Your task to perform on an android device: add a contact in the contacts app Image 0: 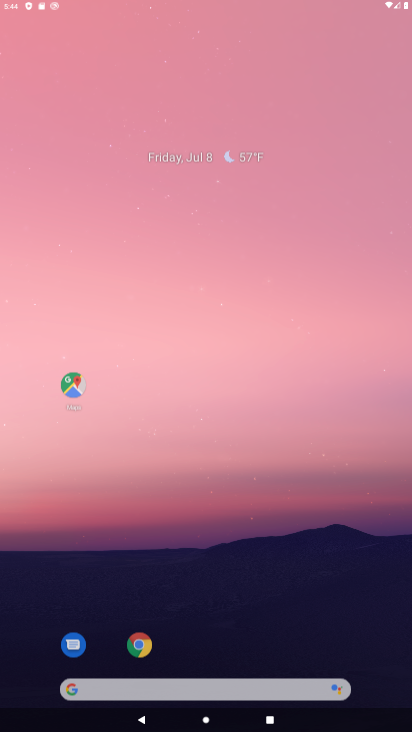
Step 0: press home button
Your task to perform on an android device: add a contact in the contacts app Image 1: 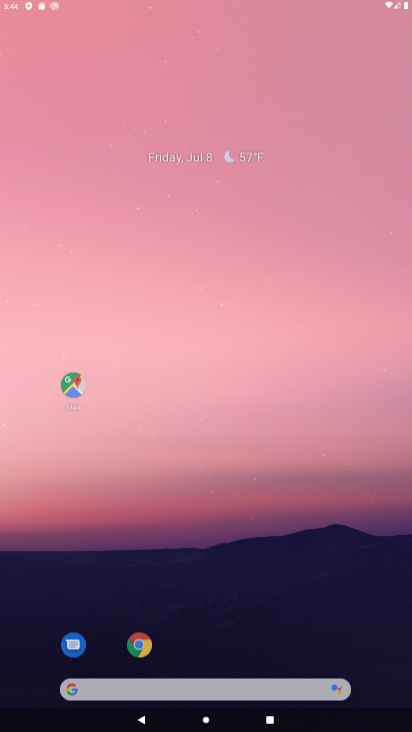
Step 1: click (169, 39)
Your task to perform on an android device: add a contact in the contacts app Image 2: 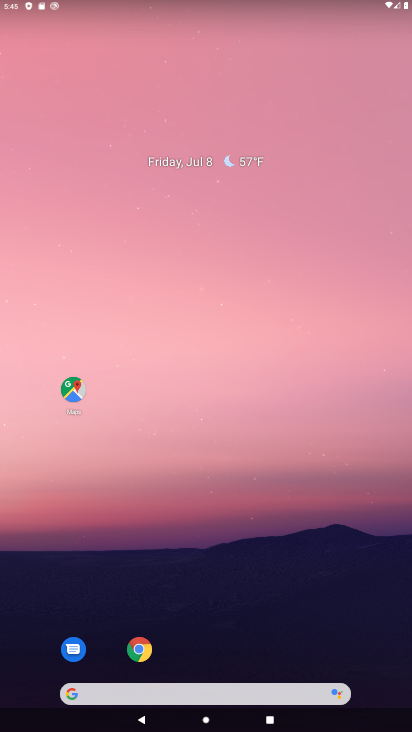
Step 2: drag from (285, 518) to (324, 34)
Your task to perform on an android device: add a contact in the contacts app Image 3: 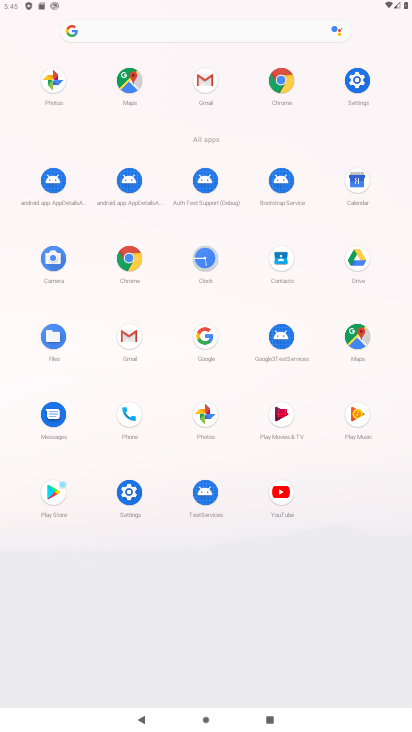
Step 3: click (280, 260)
Your task to perform on an android device: add a contact in the contacts app Image 4: 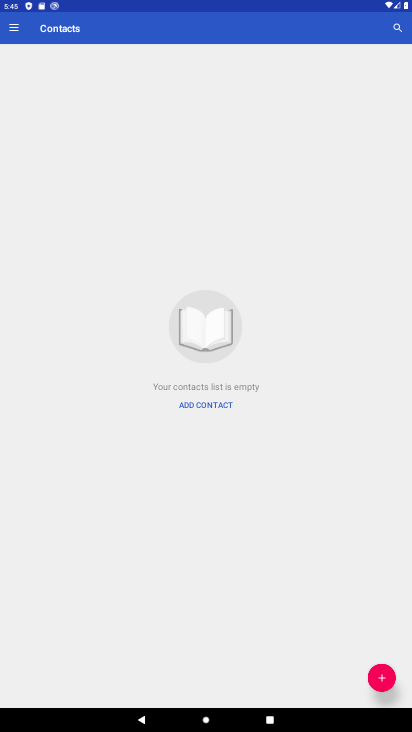
Step 4: click (382, 673)
Your task to perform on an android device: add a contact in the contacts app Image 5: 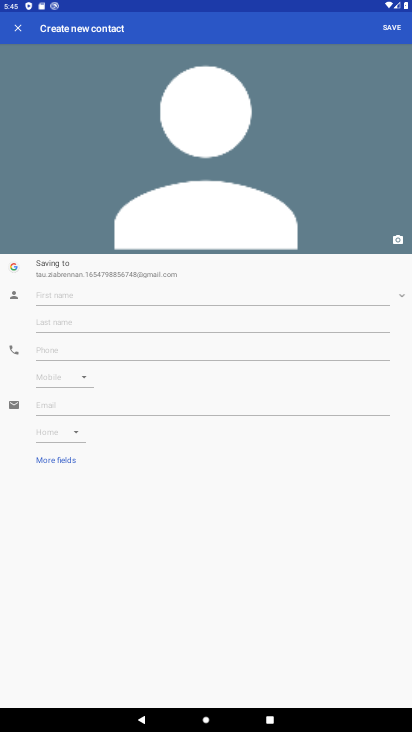
Step 5: click (148, 294)
Your task to perform on an android device: add a contact in the contacts app Image 6: 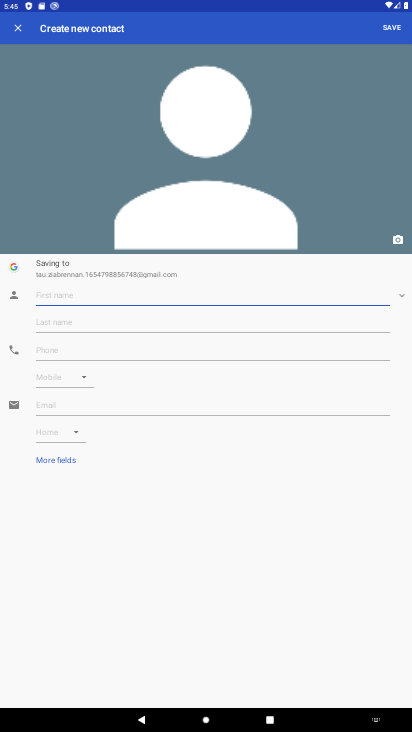
Step 6: type "swati"
Your task to perform on an android device: add a contact in the contacts app Image 7: 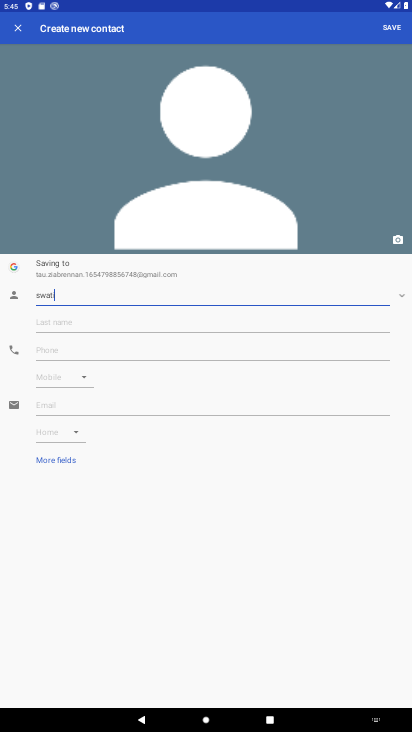
Step 7: click (91, 342)
Your task to perform on an android device: add a contact in the contacts app Image 8: 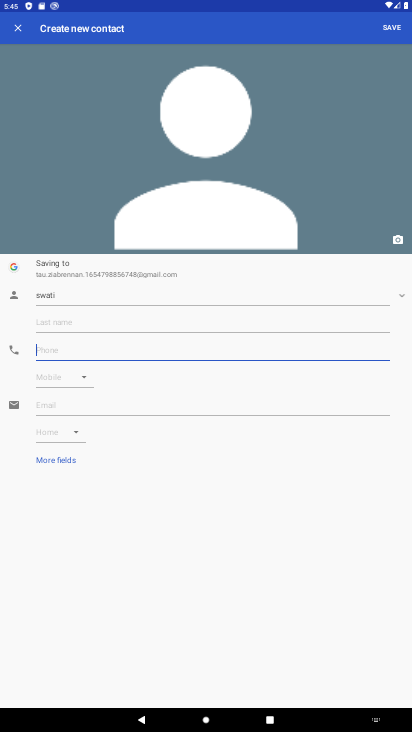
Step 8: type "9876543235"
Your task to perform on an android device: add a contact in the contacts app Image 9: 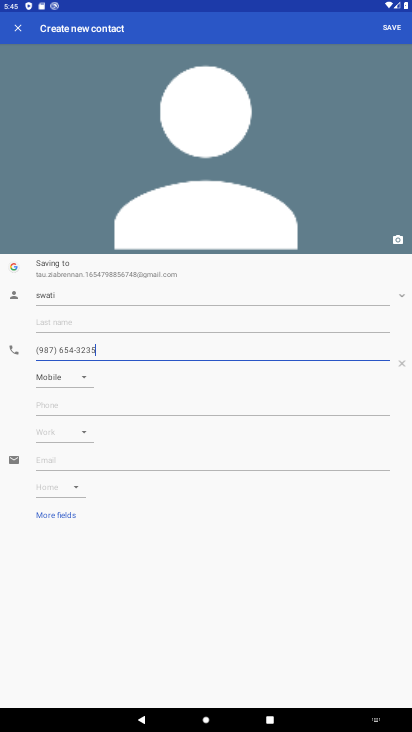
Step 9: click (390, 24)
Your task to perform on an android device: add a contact in the contacts app Image 10: 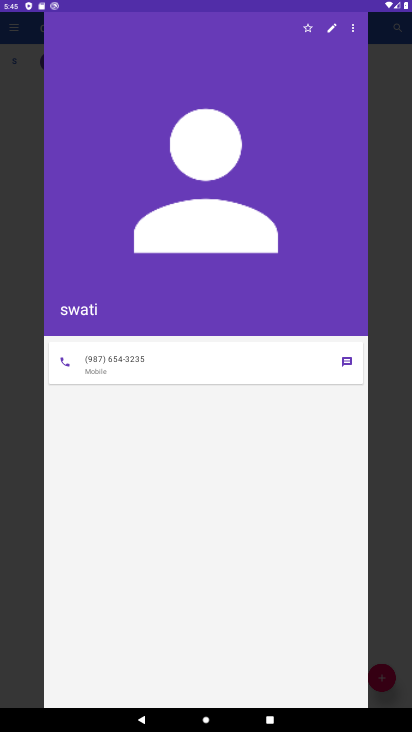
Step 10: task complete